Your task to perform on an android device: turn off data saver in the chrome app Image 0: 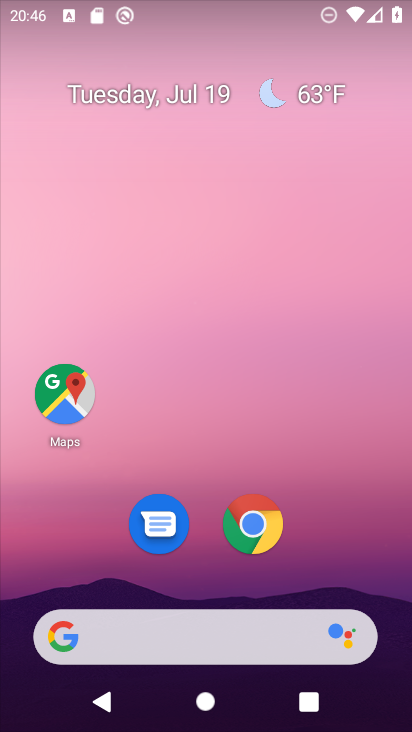
Step 0: click (258, 529)
Your task to perform on an android device: turn off data saver in the chrome app Image 1: 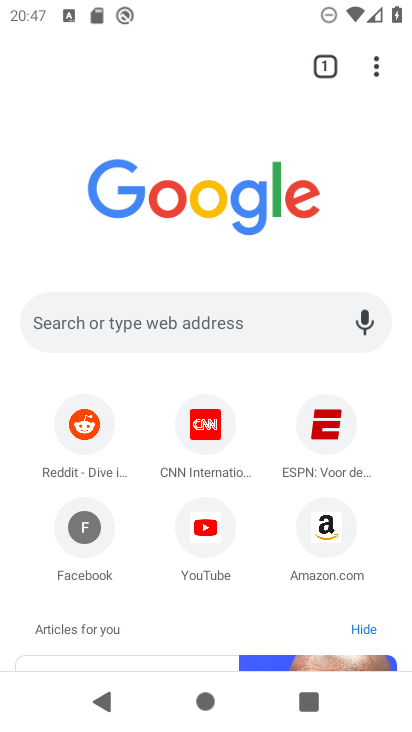
Step 1: click (374, 69)
Your task to perform on an android device: turn off data saver in the chrome app Image 2: 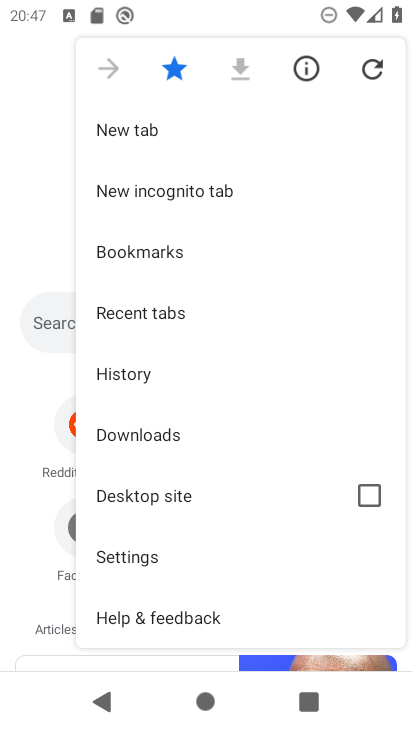
Step 2: click (147, 552)
Your task to perform on an android device: turn off data saver in the chrome app Image 3: 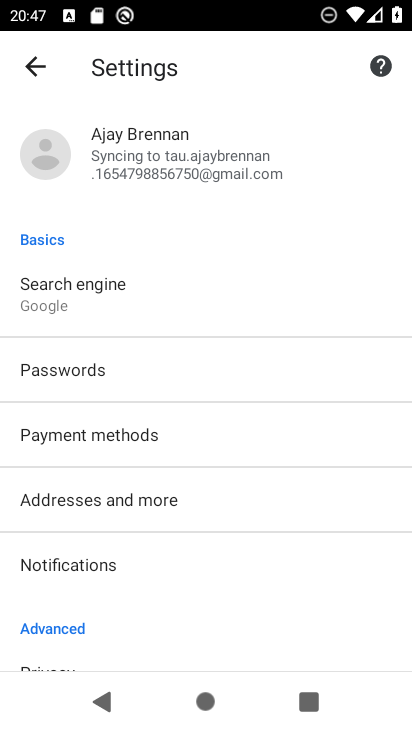
Step 3: drag from (234, 563) to (239, 179)
Your task to perform on an android device: turn off data saver in the chrome app Image 4: 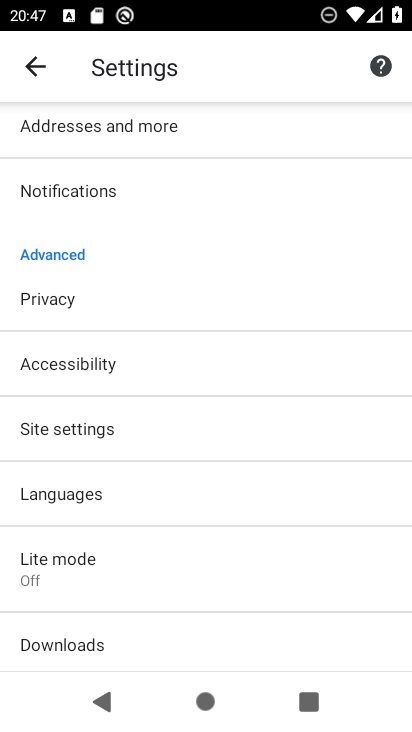
Step 4: click (88, 553)
Your task to perform on an android device: turn off data saver in the chrome app Image 5: 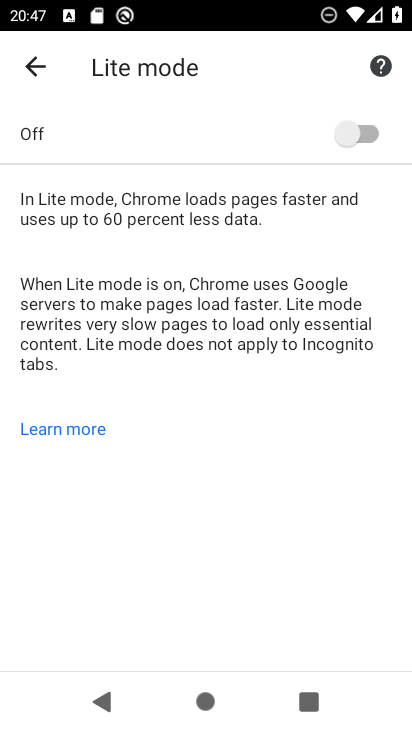
Step 5: task complete